Your task to perform on an android device: refresh tabs in the chrome app Image 0: 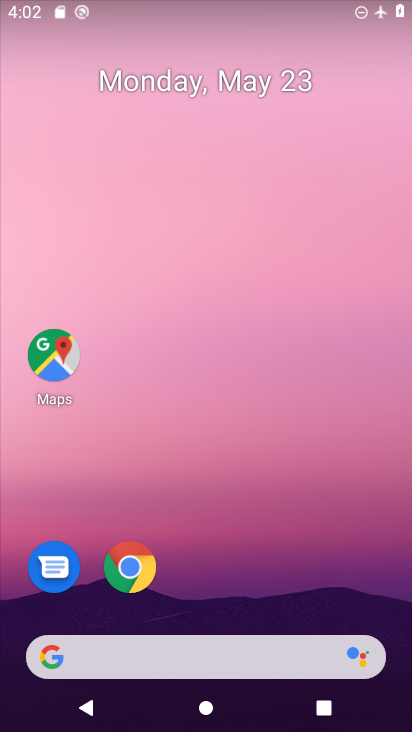
Step 0: click (127, 571)
Your task to perform on an android device: refresh tabs in the chrome app Image 1: 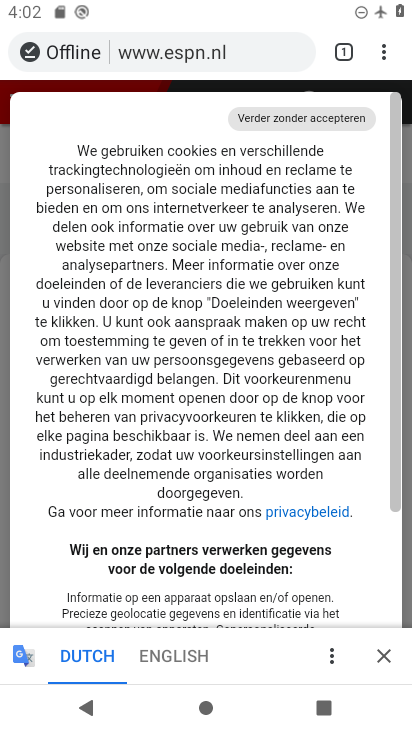
Step 1: click (381, 57)
Your task to perform on an android device: refresh tabs in the chrome app Image 2: 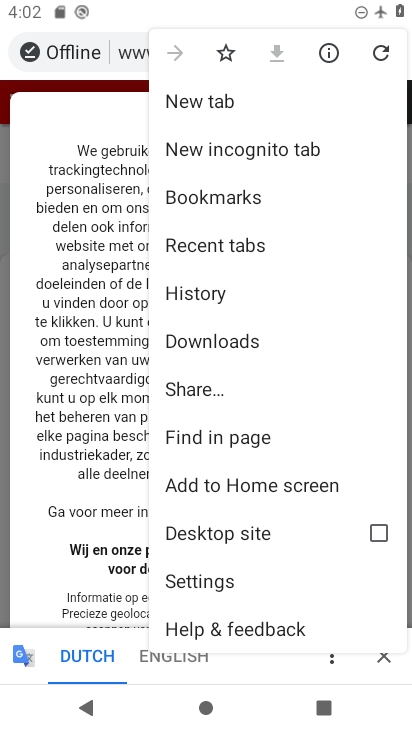
Step 2: click (376, 57)
Your task to perform on an android device: refresh tabs in the chrome app Image 3: 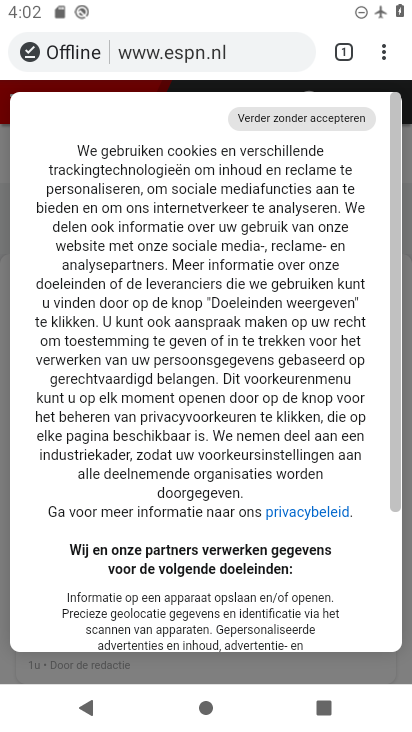
Step 3: task complete